Your task to perform on an android device: stop showing notifications on the lock screen Image 0: 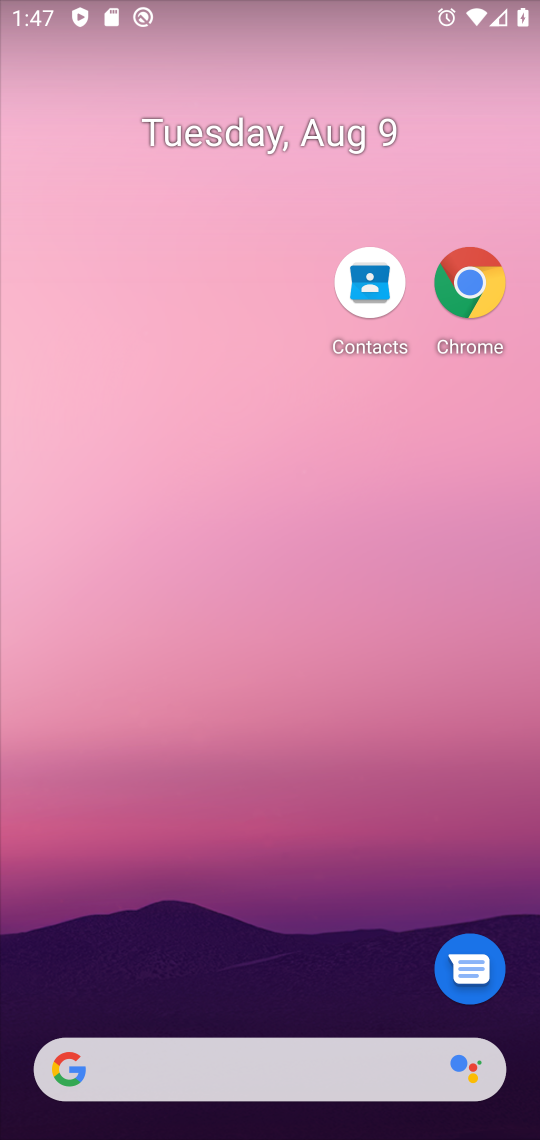
Step 0: drag from (280, 241) to (289, 0)
Your task to perform on an android device: stop showing notifications on the lock screen Image 1: 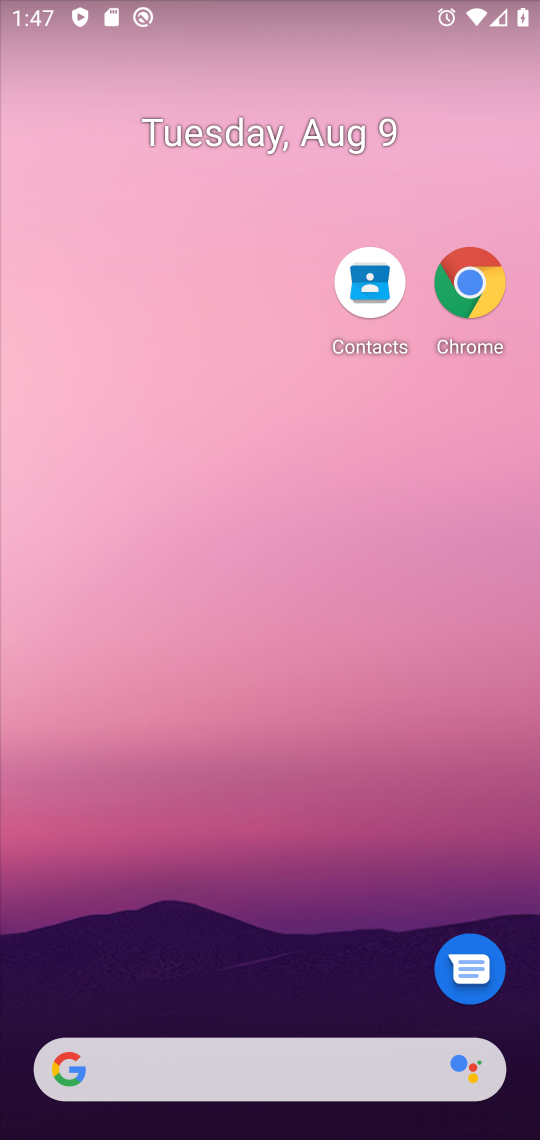
Step 1: drag from (278, 895) to (310, 487)
Your task to perform on an android device: stop showing notifications on the lock screen Image 2: 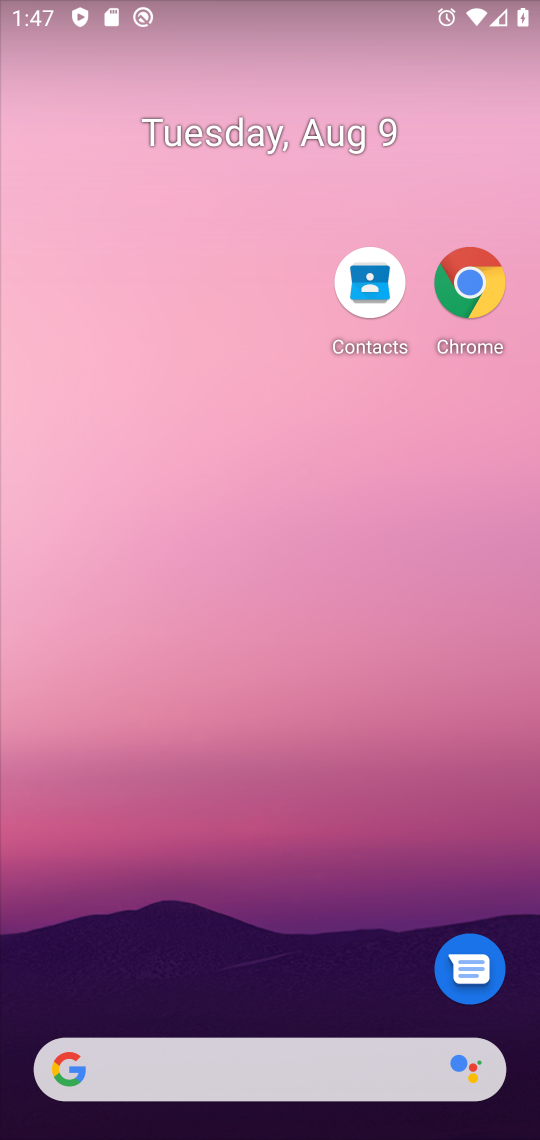
Step 2: drag from (248, 983) to (279, 159)
Your task to perform on an android device: stop showing notifications on the lock screen Image 3: 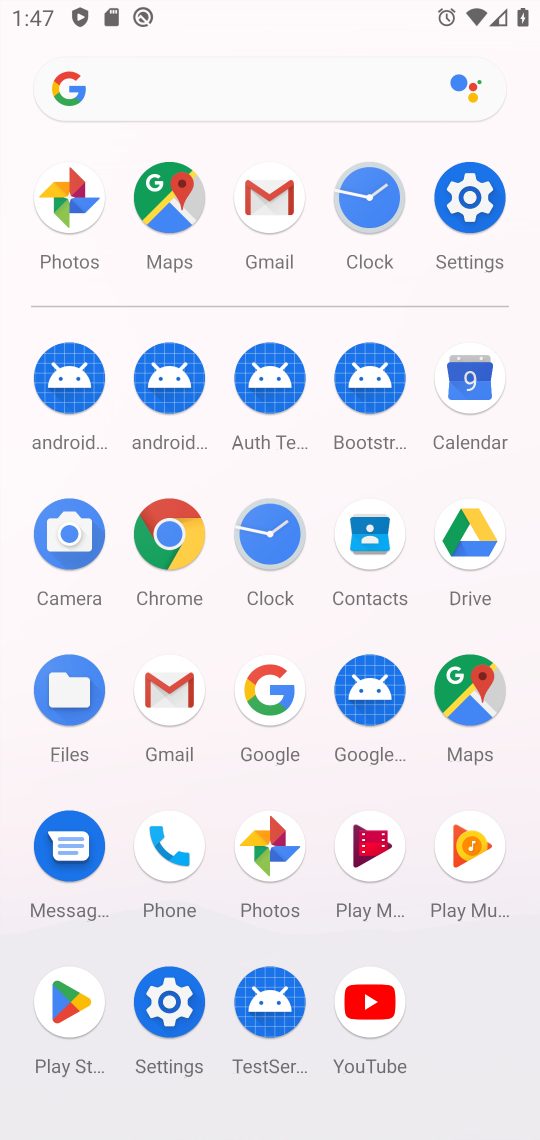
Step 3: click (181, 1003)
Your task to perform on an android device: stop showing notifications on the lock screen Image 4: 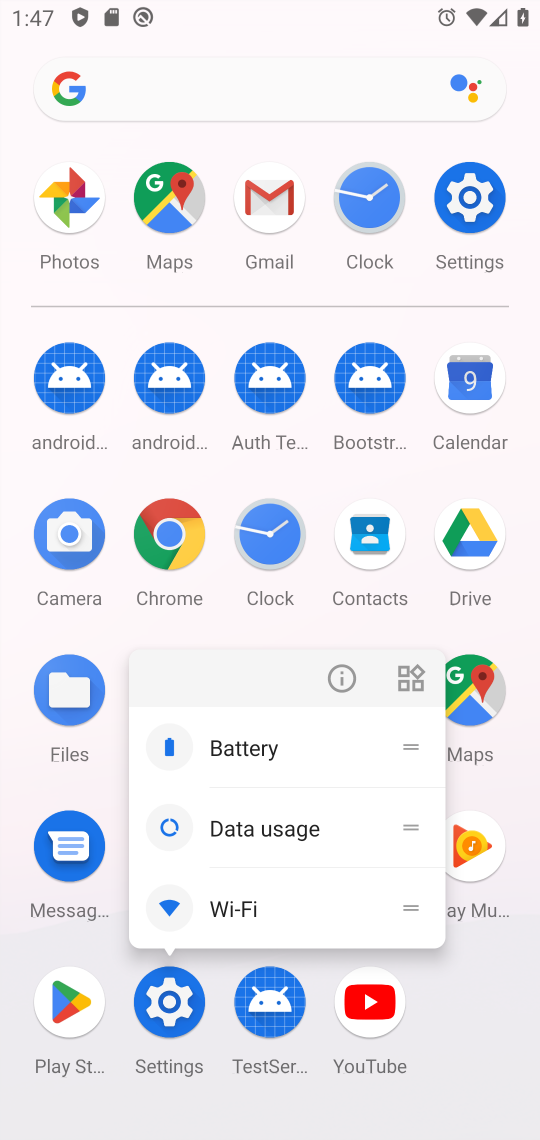
Step 4: click (336, 668)
Your task to perform on an android device: stop showing notifications on the lock screen Image 5: 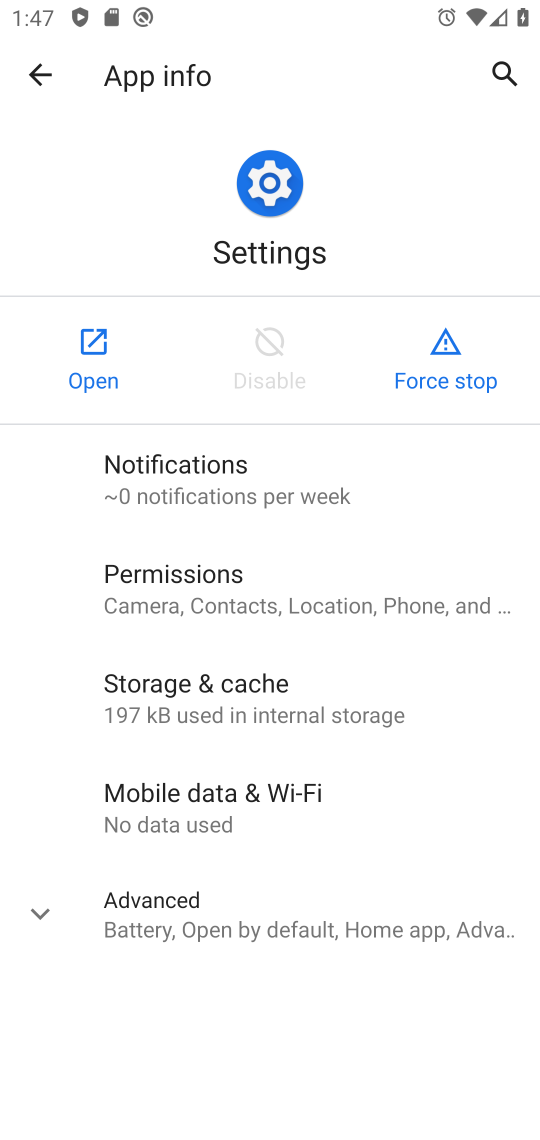
Step 5: click (82, 345)
Your task to perform on an android device: stop showing notifications on the lock screen Image 6: 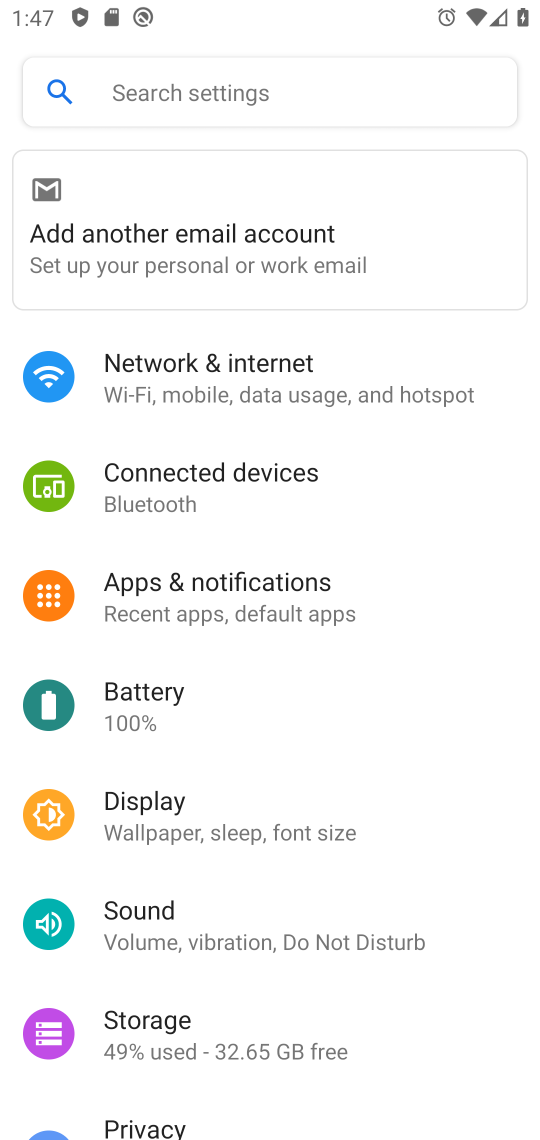
Step 6: drag from (321, 803) to (420, 225)
Your task to perform on an android device: stop showing notifications on the lock screen Image 7: 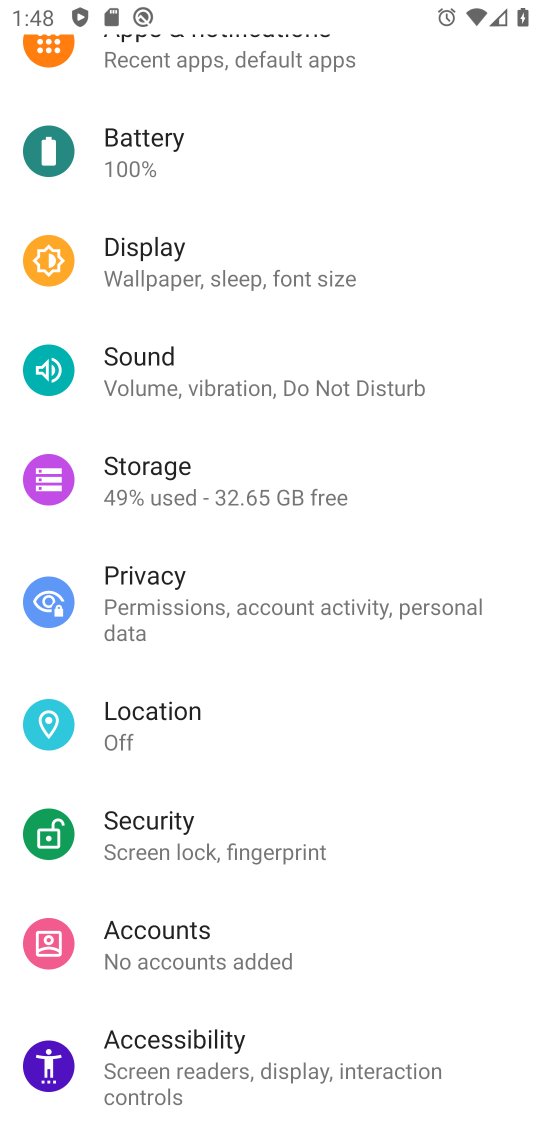
Step 7: click (177, 948)
Your task to perform on an android device: stop showing notifications on the lock screen Image 8: 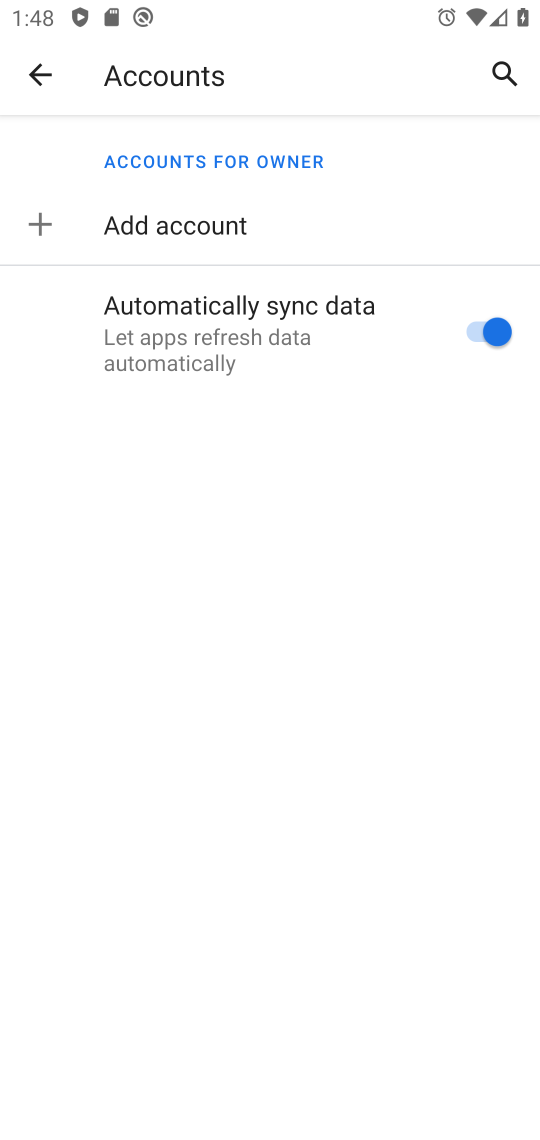
Step 8: drag from (174, 938) to (257, 380)
Your task to perform on an android device: stop showing notifications on the lock screen Image 9: 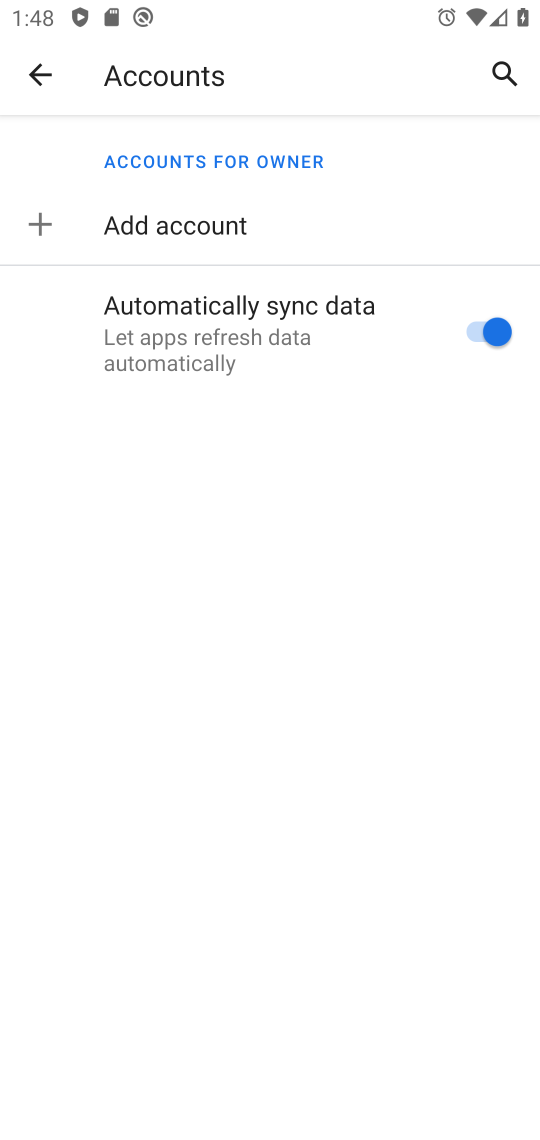
Step 9: click (42, 64)
Your task to perform on an android device: stop showing notifications on the lock screen Image 10: 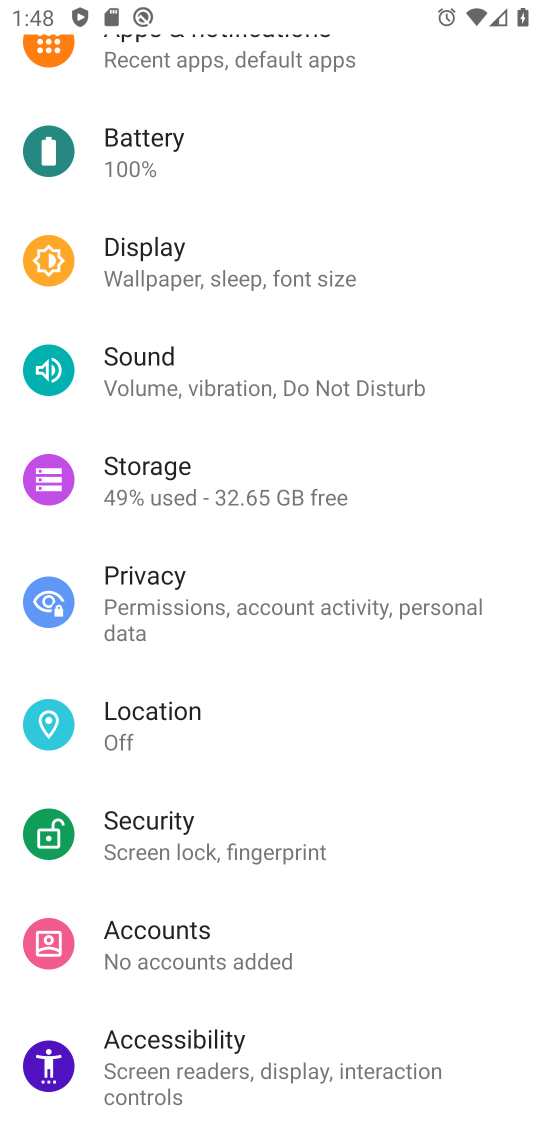
Step 10: click (156, 725)
Your task to perform on an android device: stop showing notifications on the lock screen Image 11: 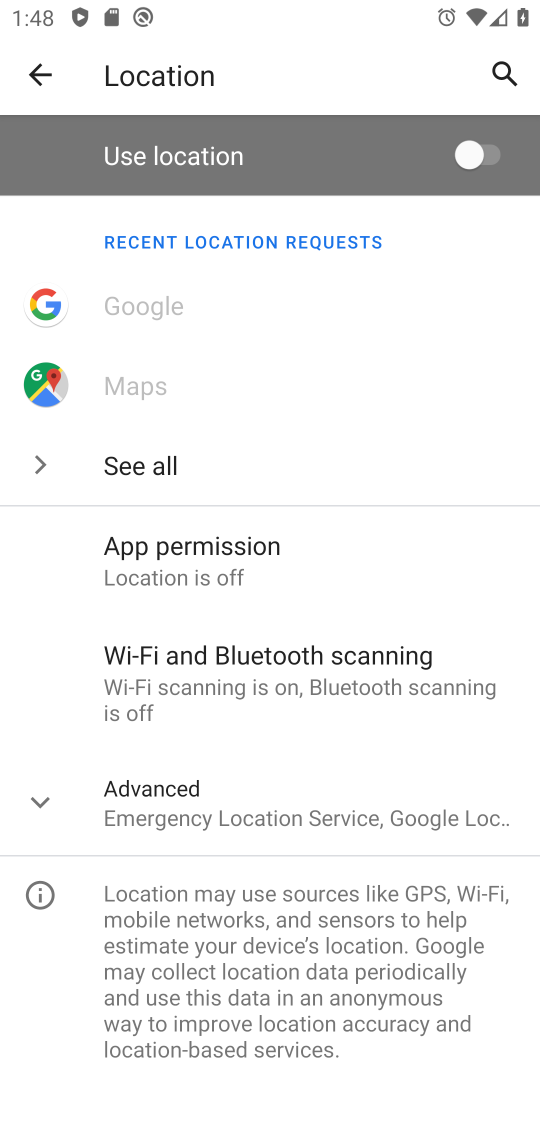
Step 11: click (197, 803)
Your task to perform on an android device: stop showing notifications on the lock screen Image 12: 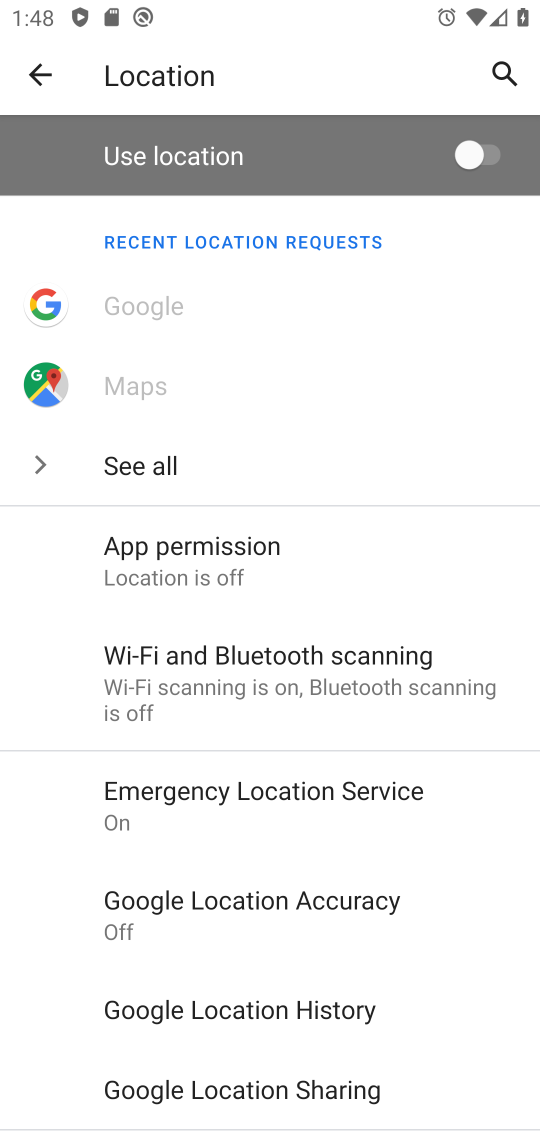
Step 12: drag from (317, 950) to (397, 464)
Your task to perform on an android device: stop showing notifications on the lock screen Image 13: 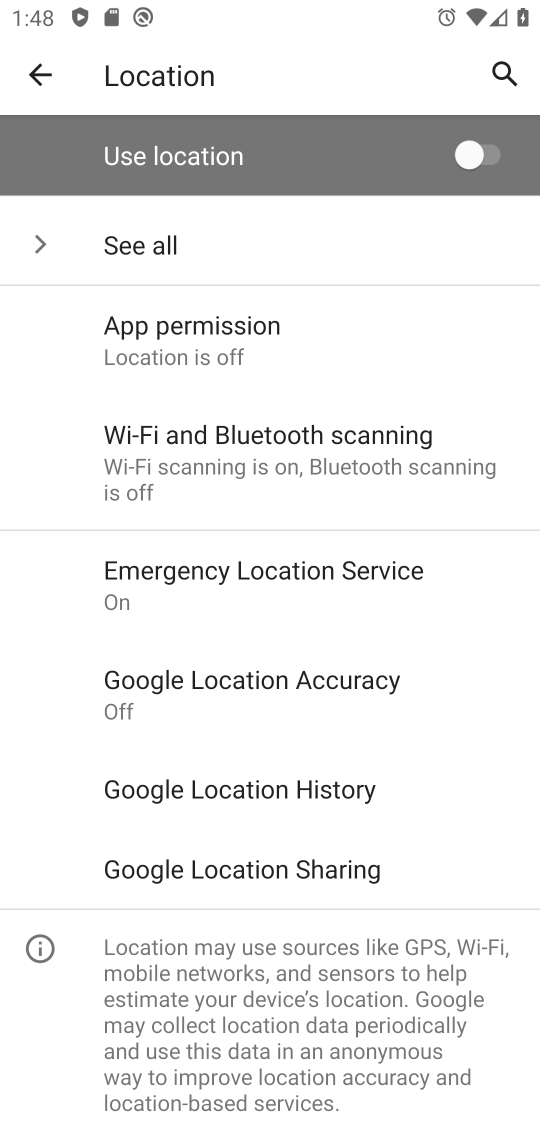
Step 13: drag from (292, 416) to (362, 1124)
Your task to perform on an android device: stop showing notifications on the lock screen Image 14: 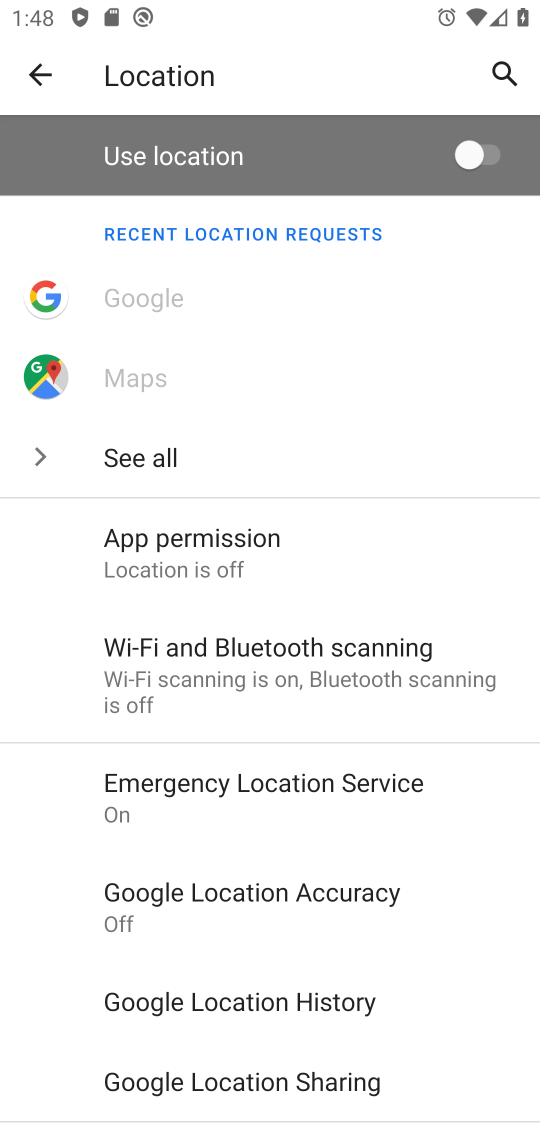
Step 14: click (45, 72)
Your task to perform on an android device: stop showing notifications on the lock screen Image 15: 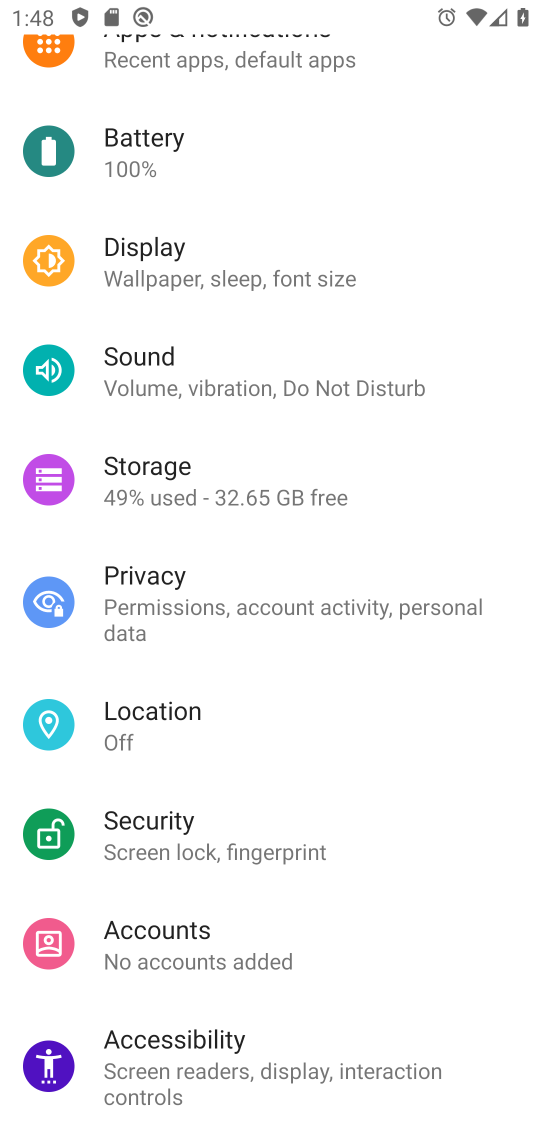
Step 15: drag from (319, 249) to (508, 976)
Your task to perform on an android device: stop showing notifications on the lock screen Image 16: 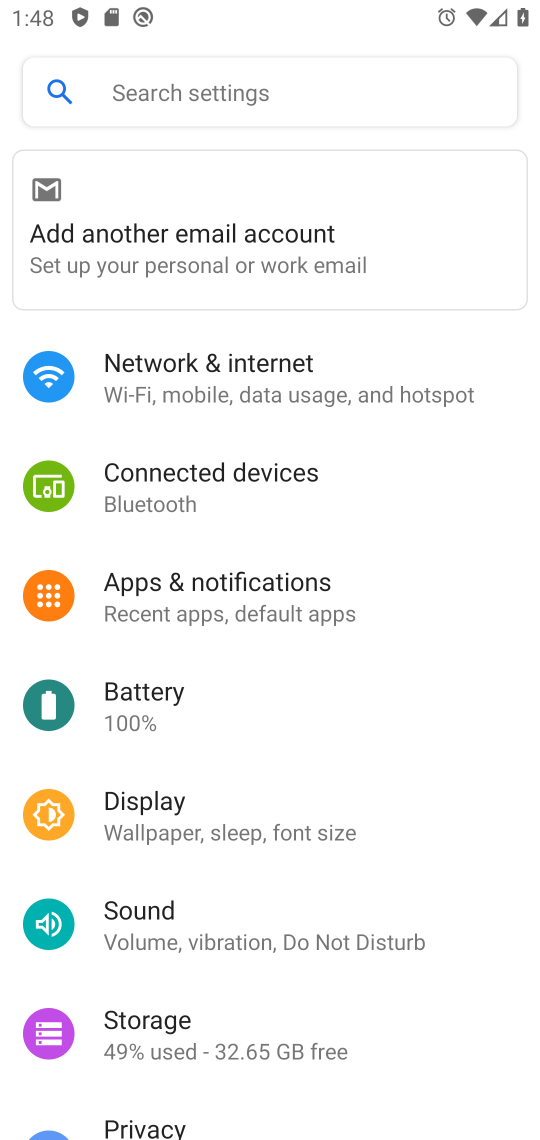
Step 16: click (157, 596)
Your task to perform on an android device: stop showing notifications on the lock screen Image 17: 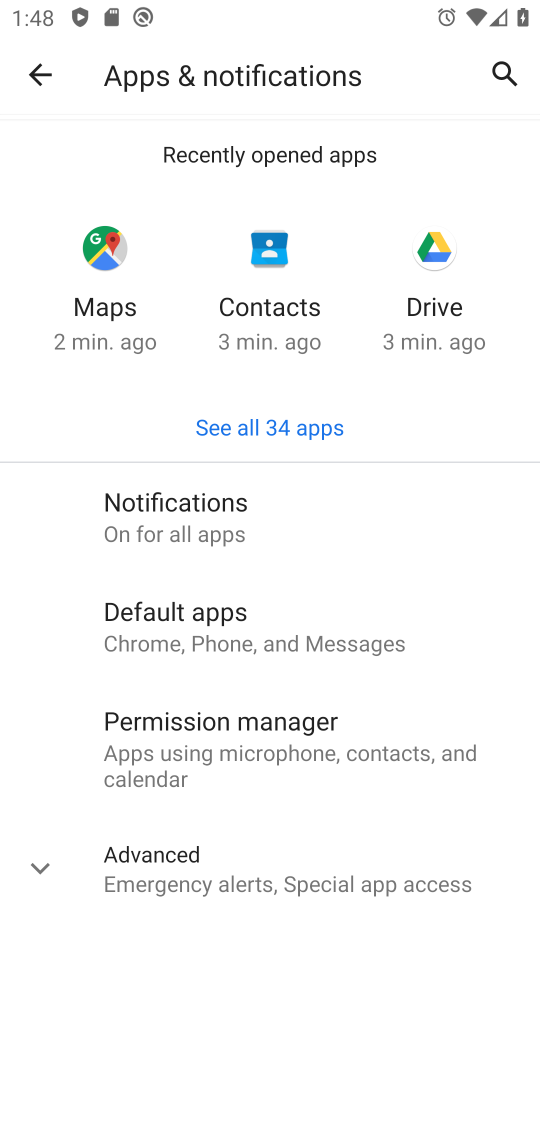
Step 17: click (264, 506)
Your task to perform on an android device: stop showing notifications on the lock screen Image 18: 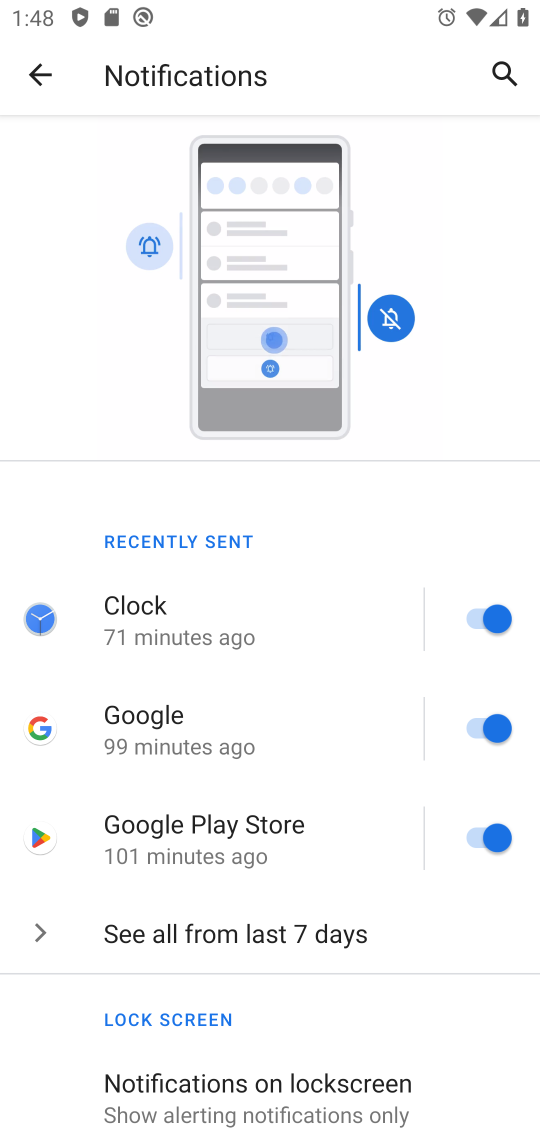
Step 18: click (329, 1089)
Your task to perform on an android device: stop showing notifications on the lock screen Image 19: 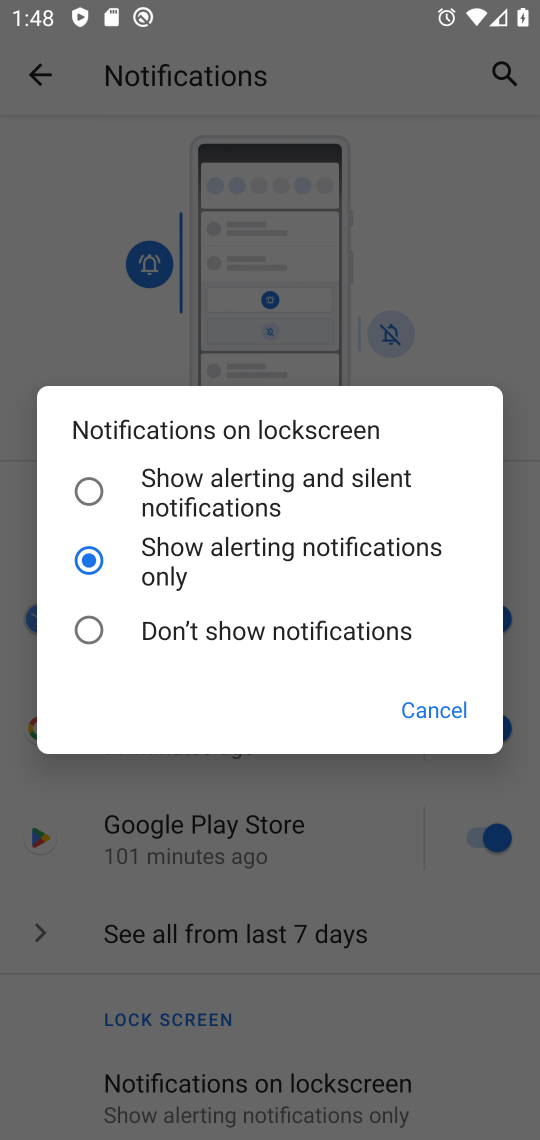
Step 19: click (215, 484)
Your task to perform on an android device: stop showing notifications on the lock screen Image 20: 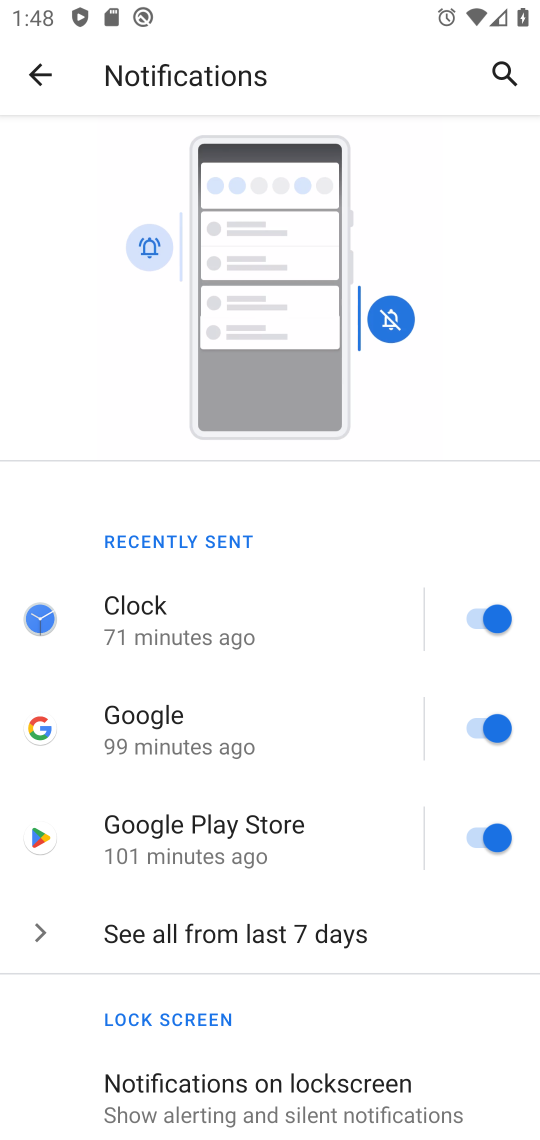
Step 20: click (225, 1079)
Your task to perform on an android device: stop showing notifications on the lock screen Image 21: 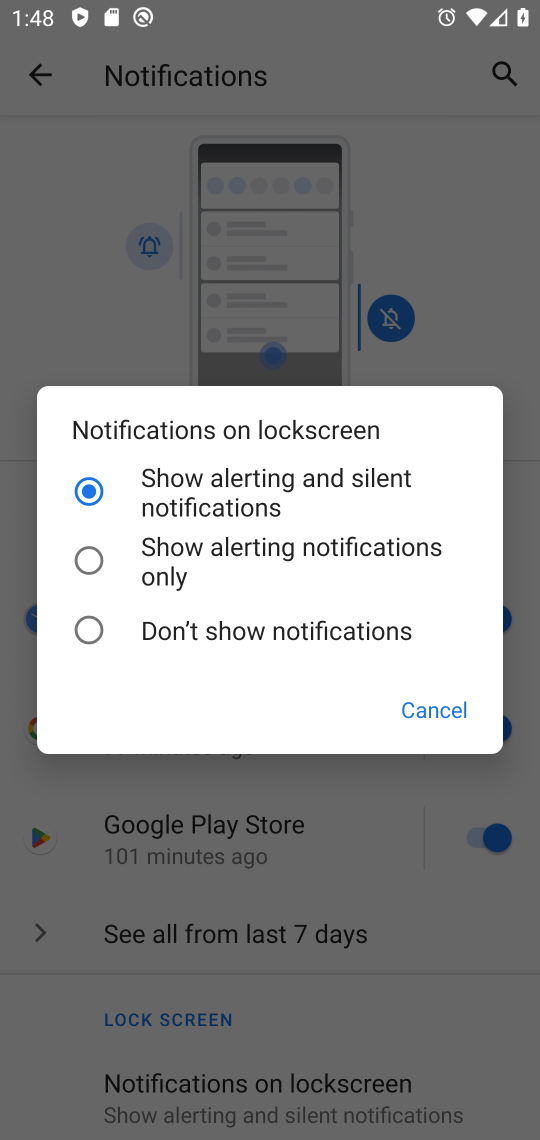
Step 21: click (133, 614)
Your task to perform on an android device: stop showing notifications on the lock screen Image 22: 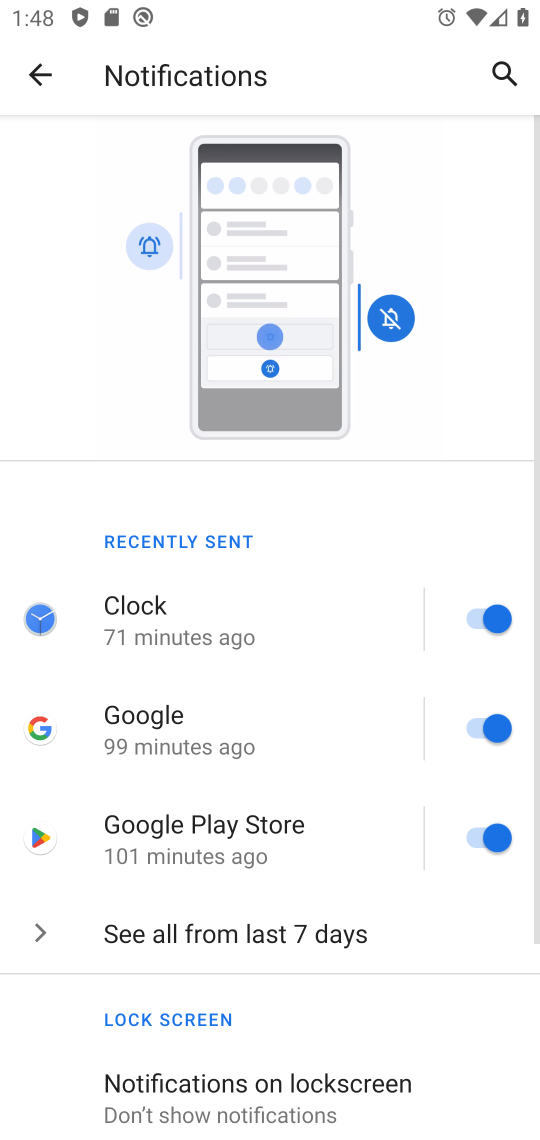
Step 22: task complete